Your task to perform on an android device: Go to Amazon Image 0: 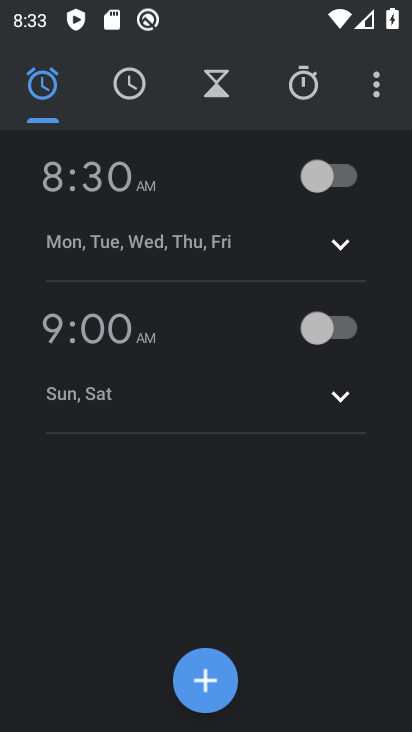
Step 0: press home button
Your task to perform on an android device: Go to Amazon Image 1: 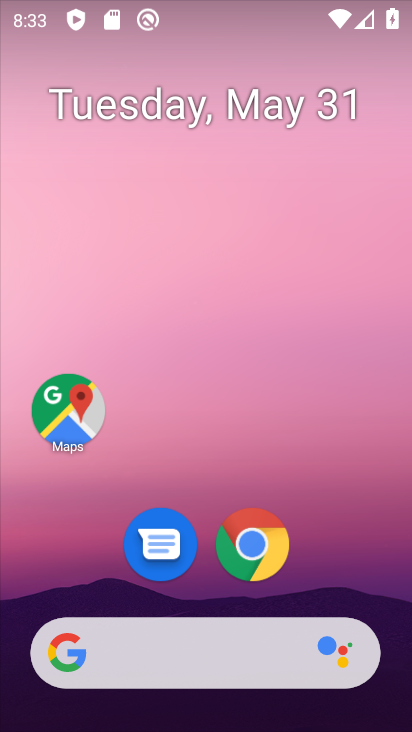
Step 1: click (252, 546)
Your task to perform on an android device: Go to Amazon Image 2: 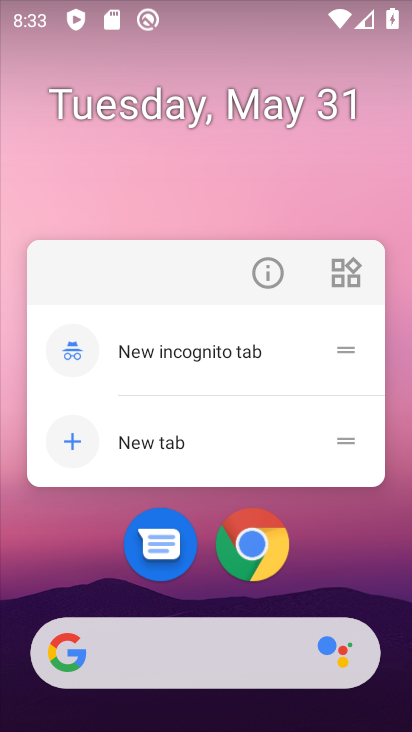
Step 2: click (252, 544)
Your task to perform on an android device: Go to Amazon Image 3: 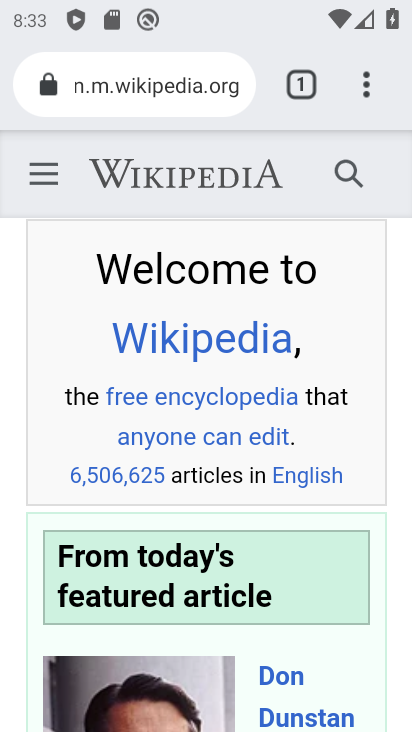
Step 3: click (148, 81)
Your task to perform on an android device: Go to Amazon Image 4: 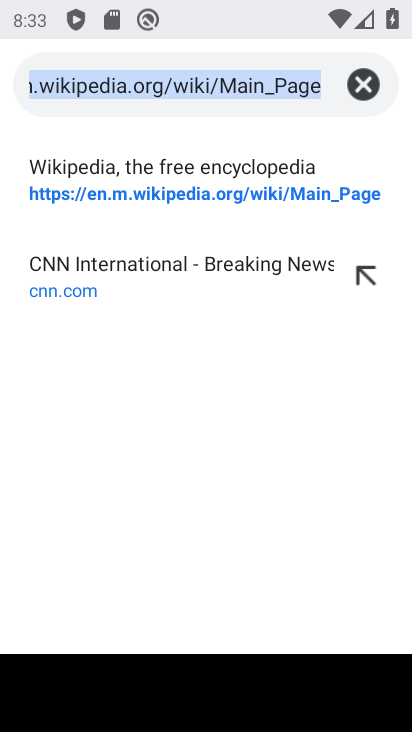
Step 4: type "amazon"
Your task to perform on an android device: Go to Amazon Image 5: 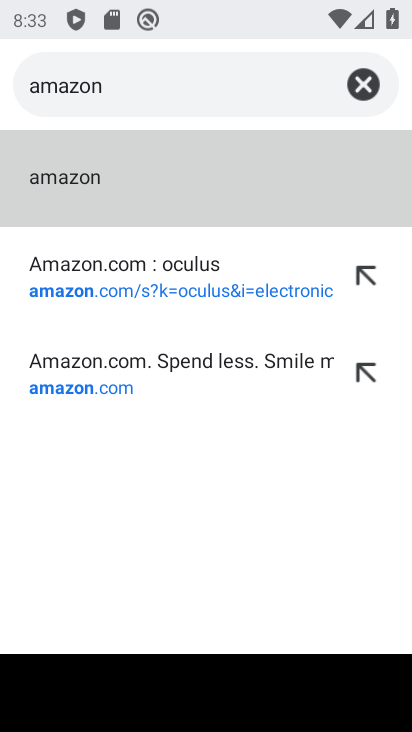
Step 5: click (58, 160)
Your task to perform on an android device: Go to Amazon Image 6: 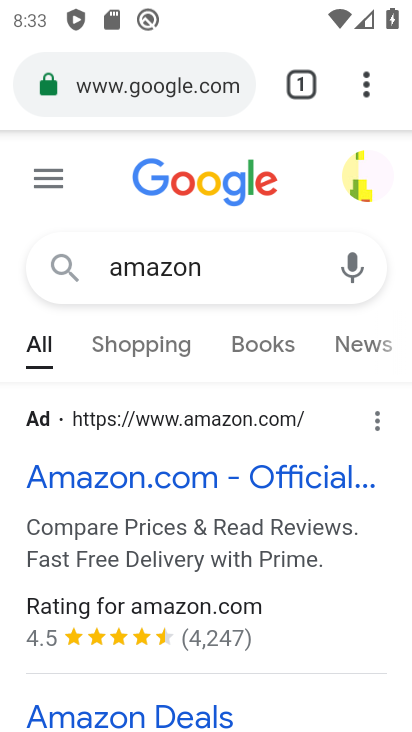
Step 6: click (135, 471)
Your task to perform on an android device: Go to Amazon Image 7: 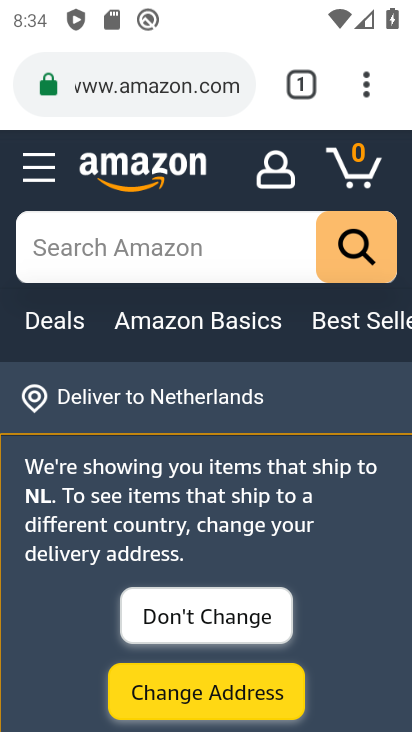
Step 7: task complete